Your task to perform on an android device: Add dell alienware to the cart on target, then select checkout. Image 0: 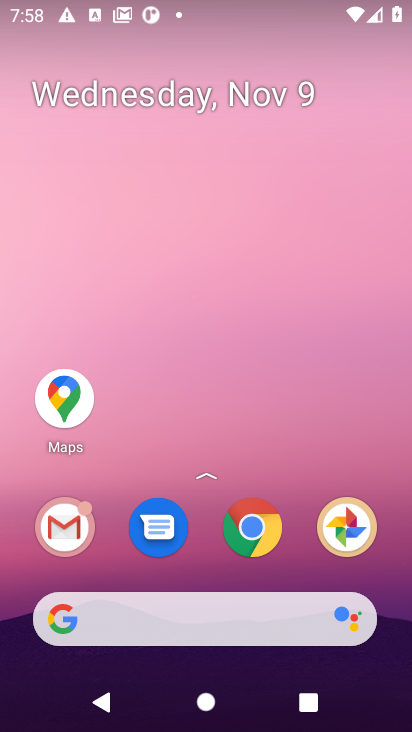
Step 0: click (252, 527)
Your task to perform on an android device: Add dell alienware to the cart on target, then select checkout. Image 1: 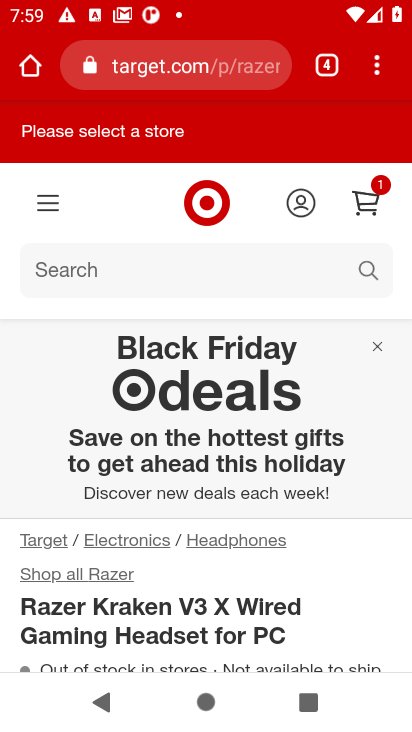
Step 1: click (361, 271)
Your task to perform on an android device: Add dell alienware to the cart on target, then select checkout. Image 2: 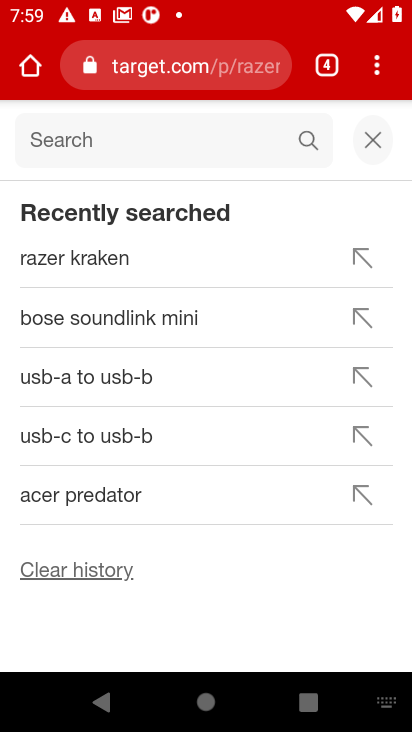
Step 2: type "dell alienware"
Your task to perform on an android device: Add dell alienware to the cart on target, then select checkout. Image 3: 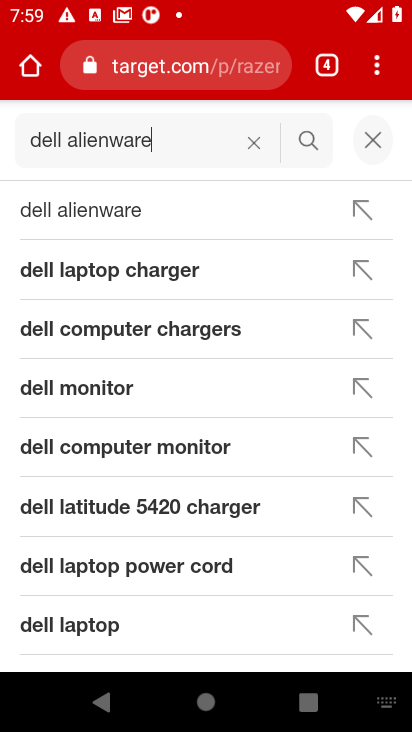
Step 3: click (107, 216)
Your task to perform on an android device: Add dell alienware to the cart on target, then select checkout. Image 4: 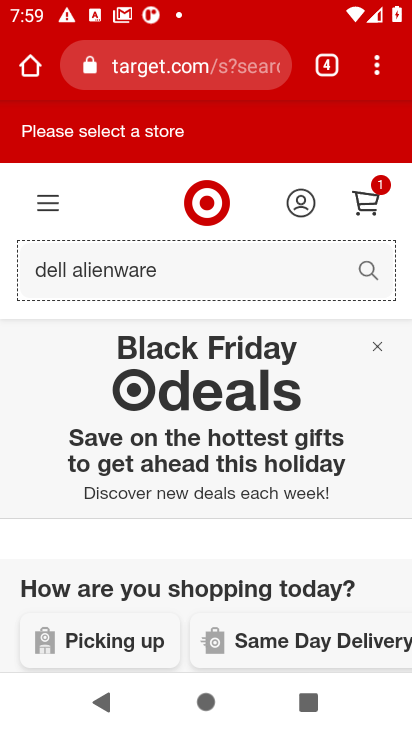
Step 4: task complete